Your task to perform on an android device: set the timer Image 0: 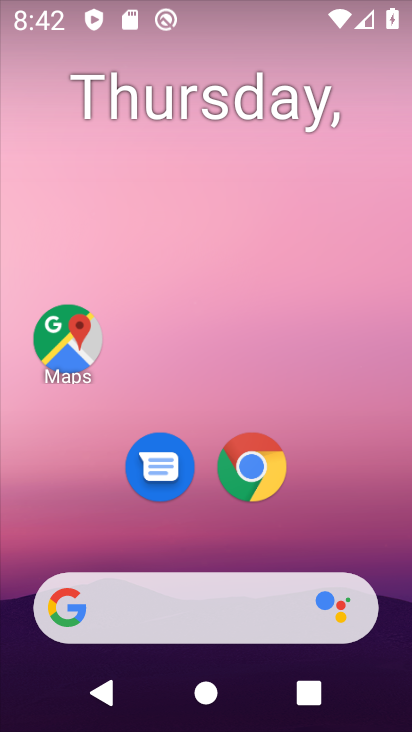
Step 0: drag from (334, 500) to (277, 158)
Your task to perform on an android device: set the timer Image 1: 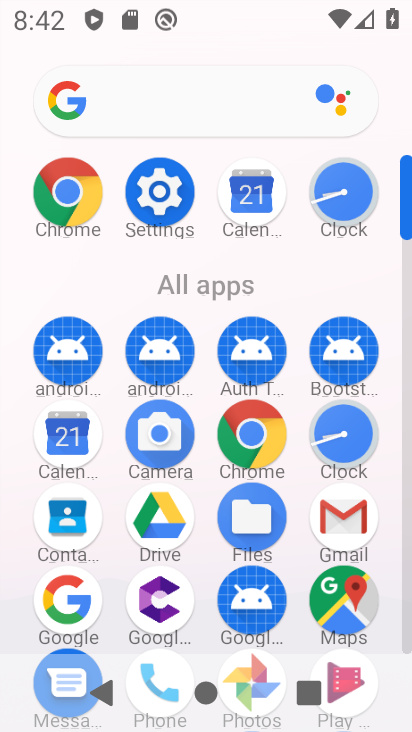
Step 1: click (327, 183)
Your task to perform on an android device: set the timer Image 2: 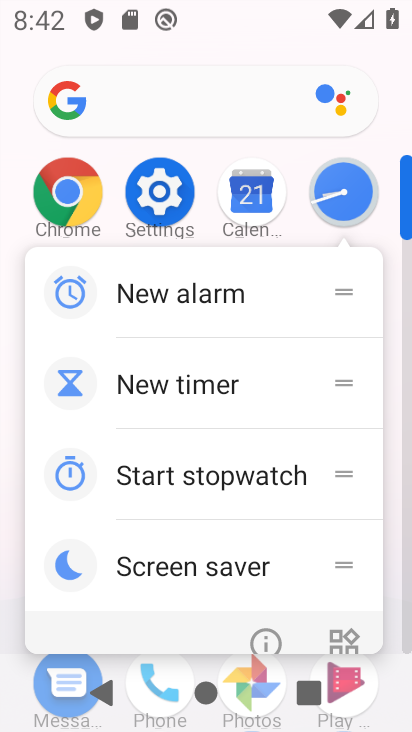
Step 2: click (328, 184)
Your task to perform on an android device: set the timer Image 3: 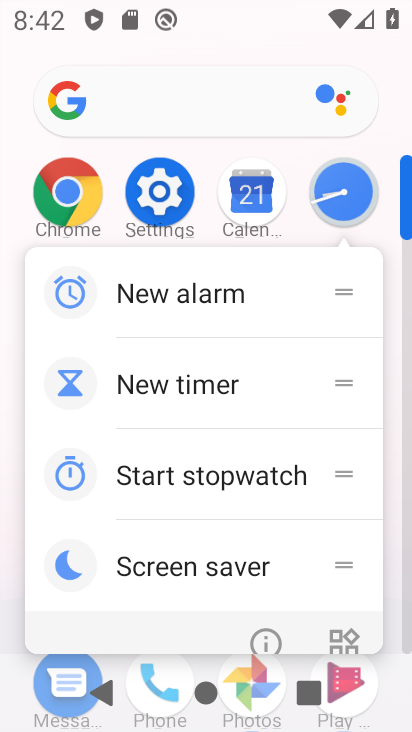
Step 3: click (328, 184)
Your task to perform on an android device: set the timer Image 4: 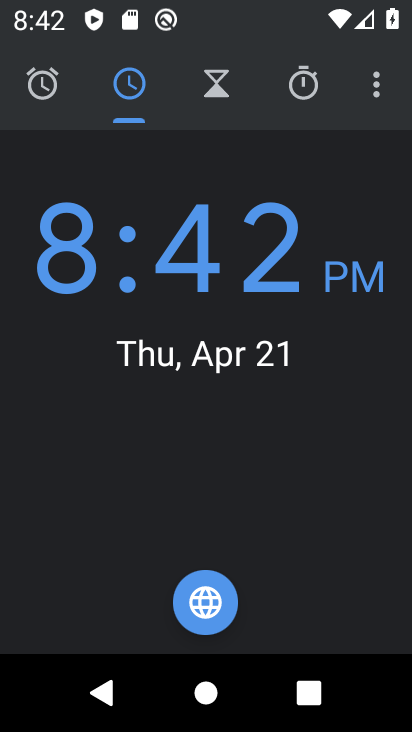
Step 4: click (217, 89)
Your task to perform on an android device: set the timer Image 5: 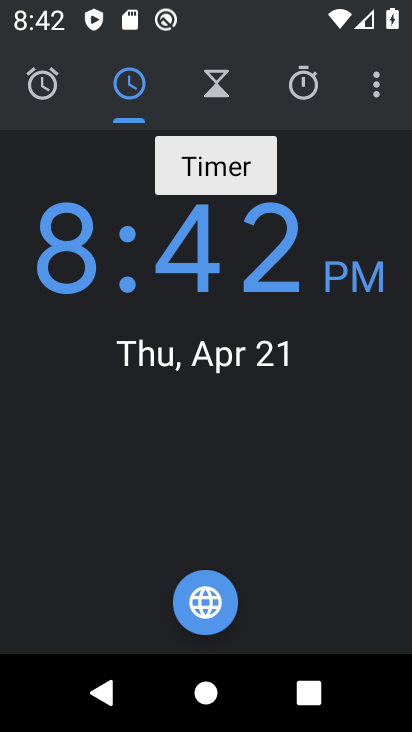
Step 5: click (217, 89)
Your task to perform on an android device: set the timer Image 6: 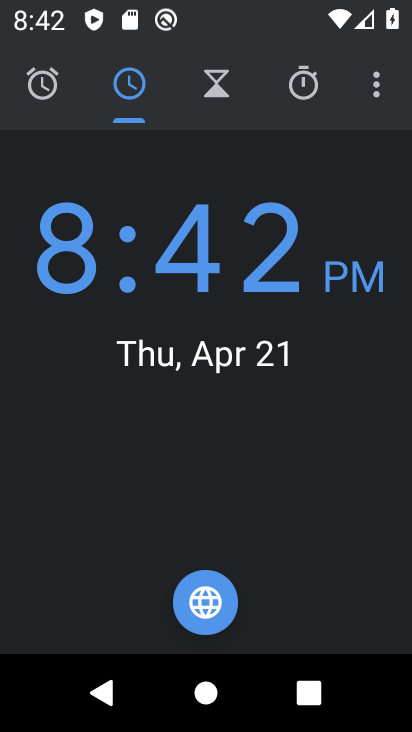
Step 6: click (217, 89)
Your task to perform on an android device: set the timer Image 7: 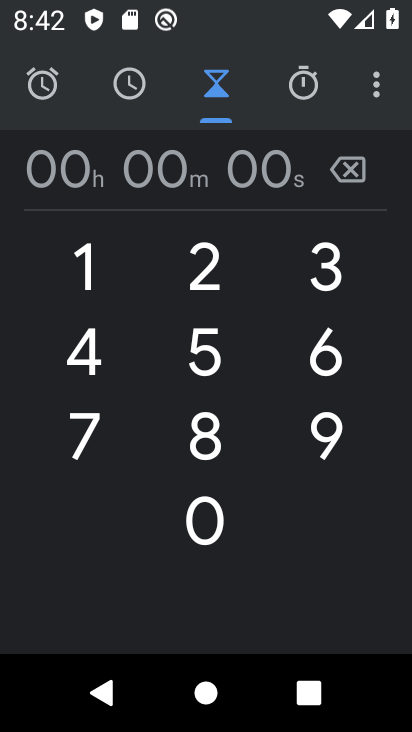
Step 7: click (99, 256)
Your task to perform on an android device: set the timer Image 8: 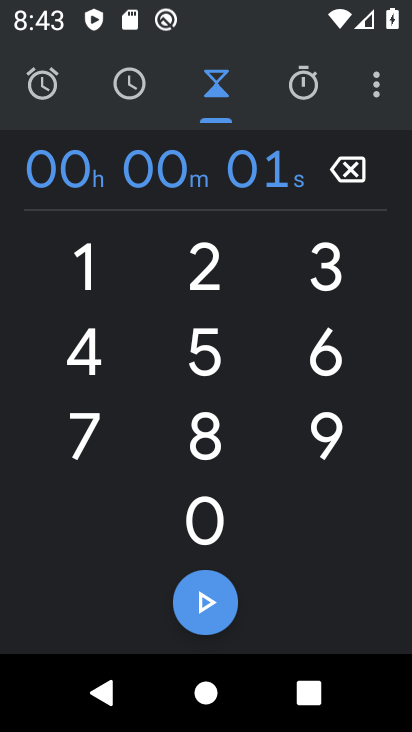
Step 8: click (209, 283)
Your task to perform on an android device: set the timer Image 9: 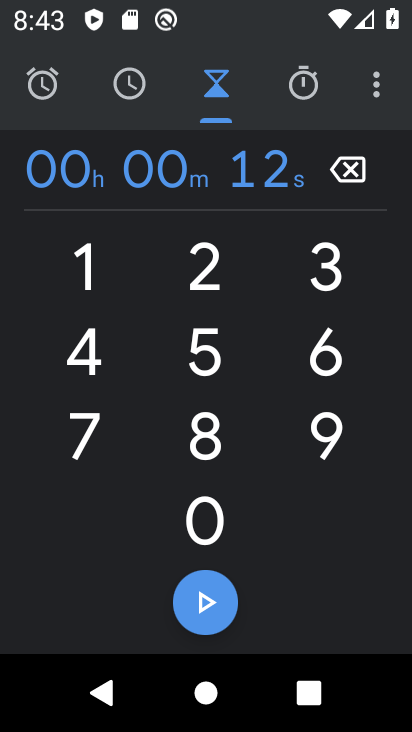
Step 9: click (331, 276)
Your task to perform on an android device: set the timer Image 10: 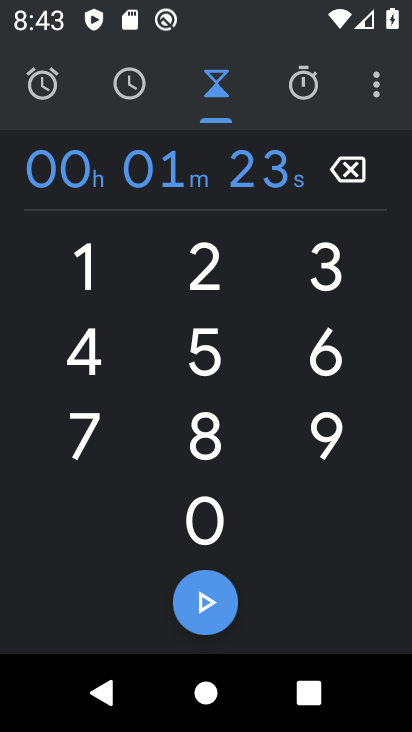
Step 10: click (341, 437)
Your task to perform on an android device: set the timer Image 11: 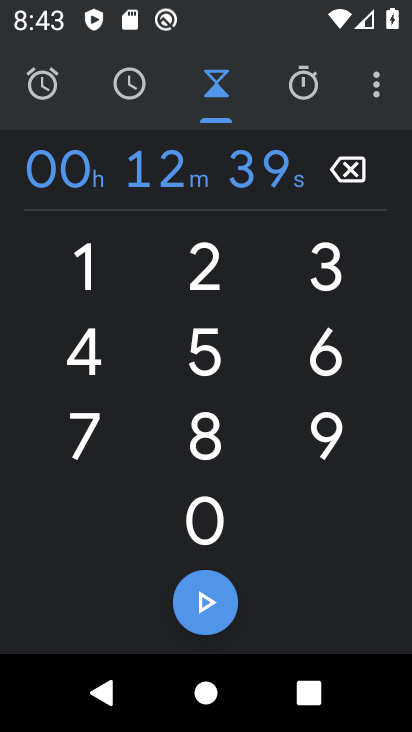
Step 11: click (210, 433)
Your task to perform on an android device: set the timer Image 12: 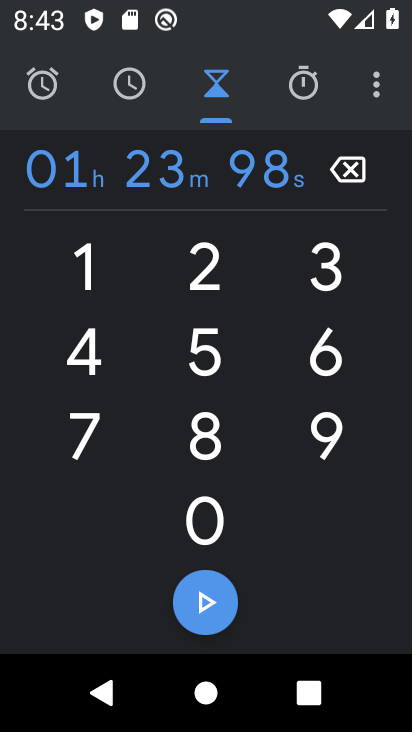
Step 12: click (83, 438)
Your task to perform on an android device: set the timer Image 13: 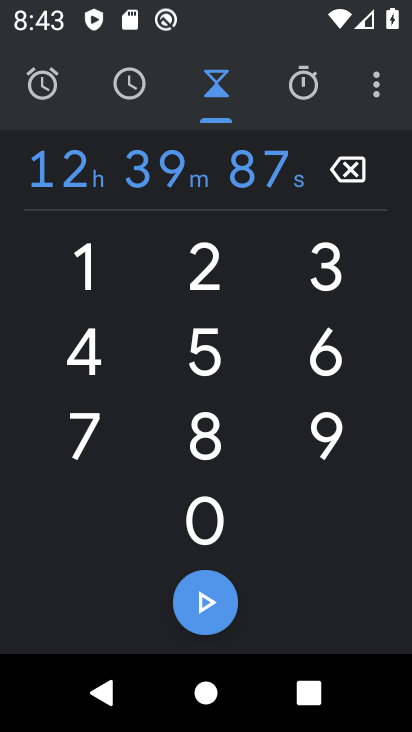
Step 13: click (193, 598)
Your task to perform on an android device: set the timer Image 14: 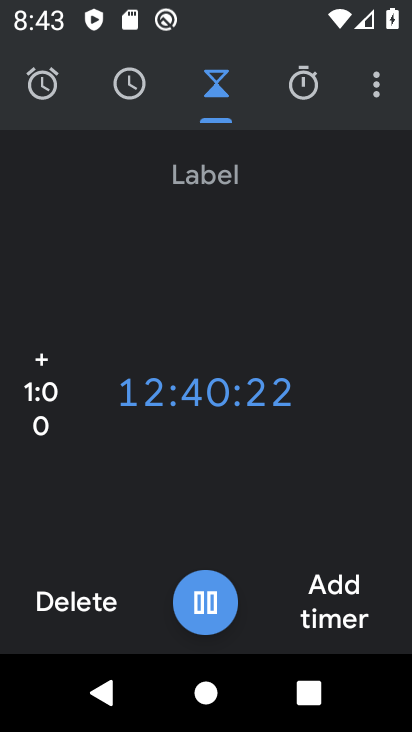
Step 14: task complete